Your task to perform on an android device: Check the news Image 0: 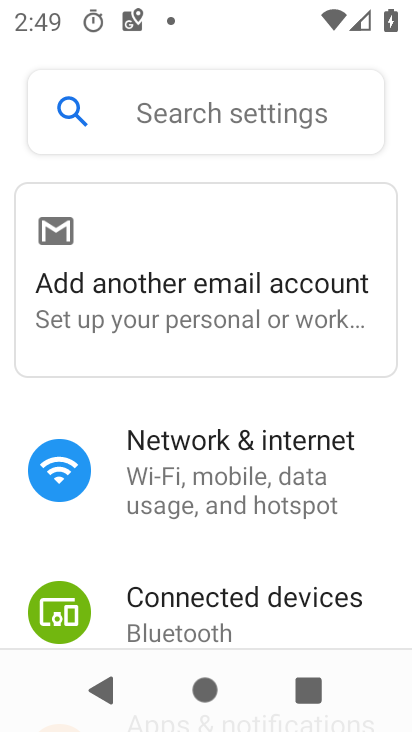
Step 0: press home button
Your task to perform on an android device: Check the news Image 1: 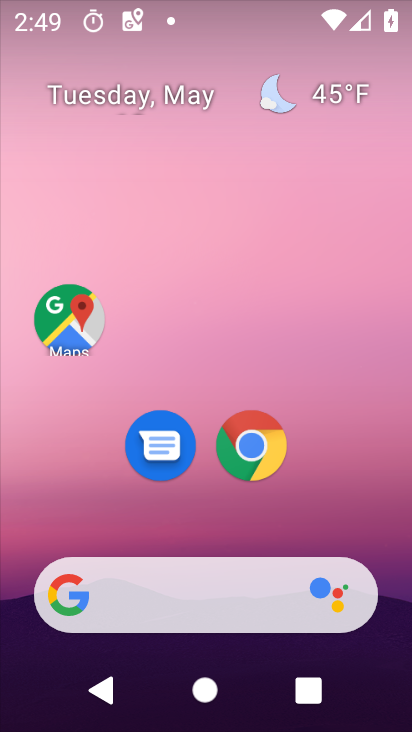
Step 1: click (132, 602)
Your task to perform on an android device: Check the news Image 2: 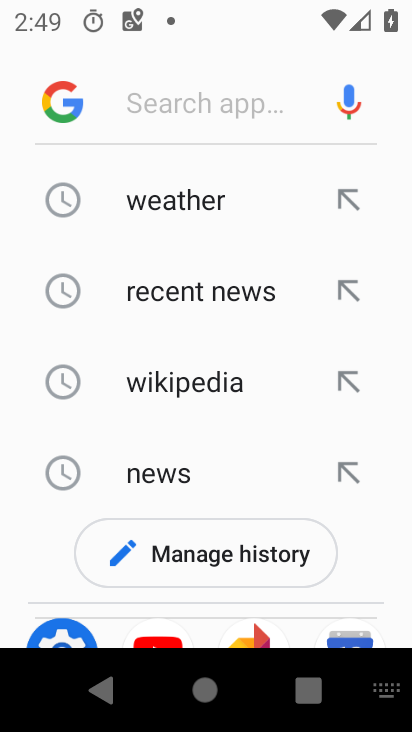
Step 2: click (168, 464)
Your task to perform on an android device: Check the news Image 3: 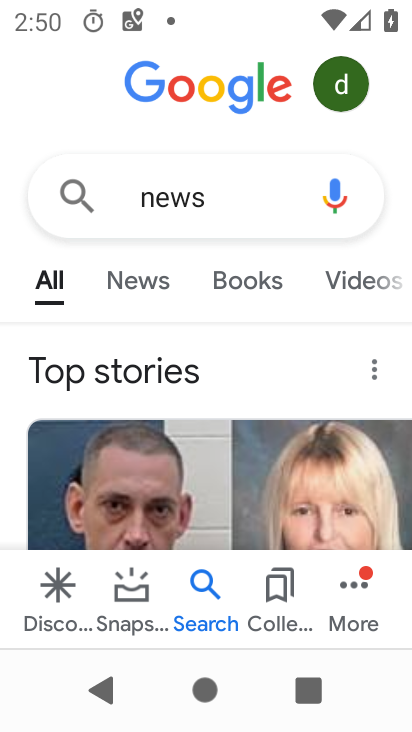
Step 3: task complete